Your task to perform on an android device: Open location settings Image 0: 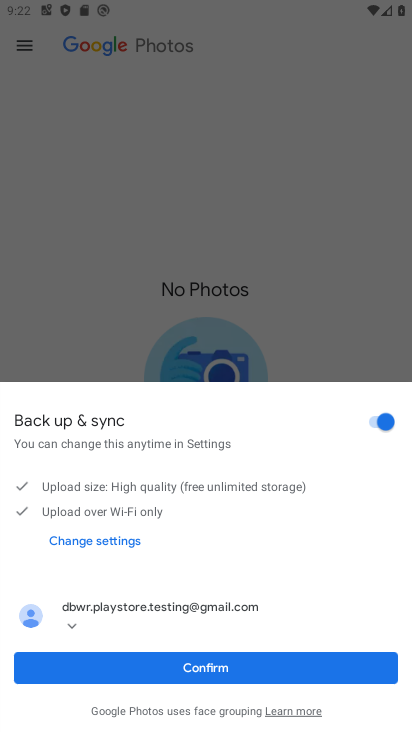
Step 0: press home button
Your task to perform on an android device: Open location settings Image 1: 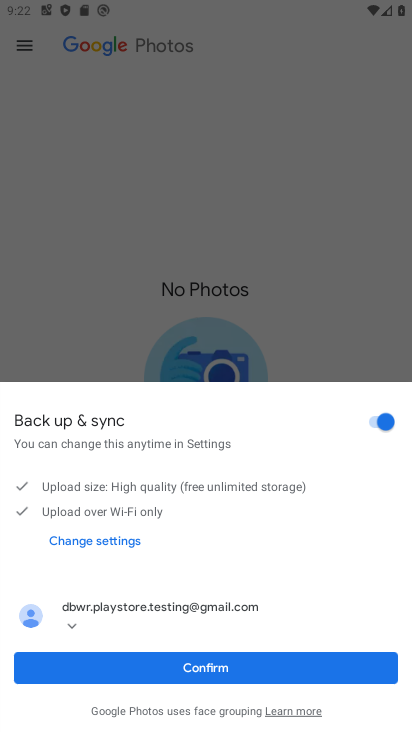
Step 1: press home button
Your task to perform on an android device: Open location settings Image 2: 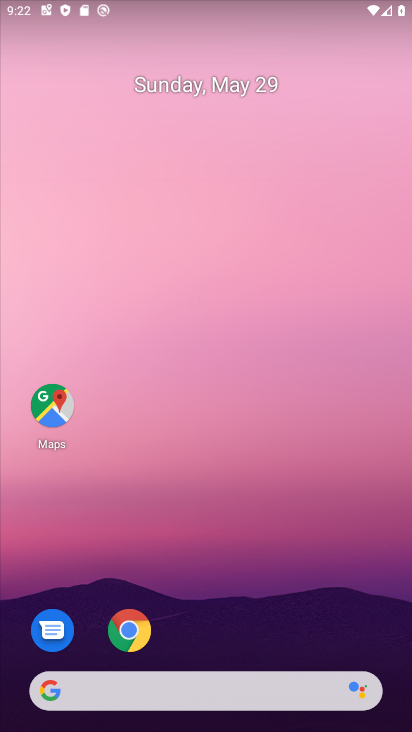
Step 2: drag from (355, 570) to (336, 85)
Your task to perform on an android device: Open location settings Image 3: 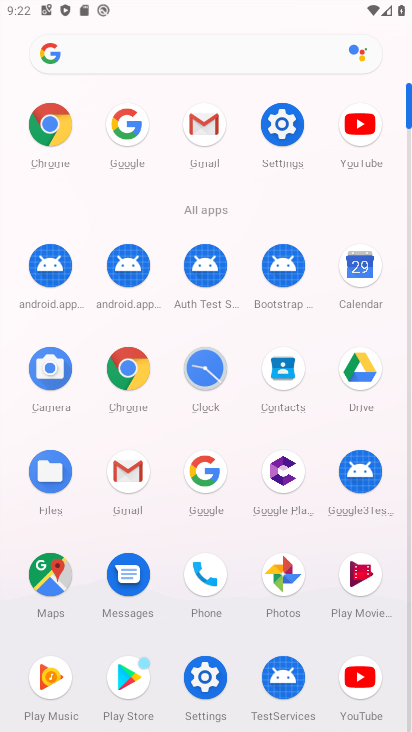
Step 3: click (298, 118)
Your task to perform on an android device: Open location settings Image 4: 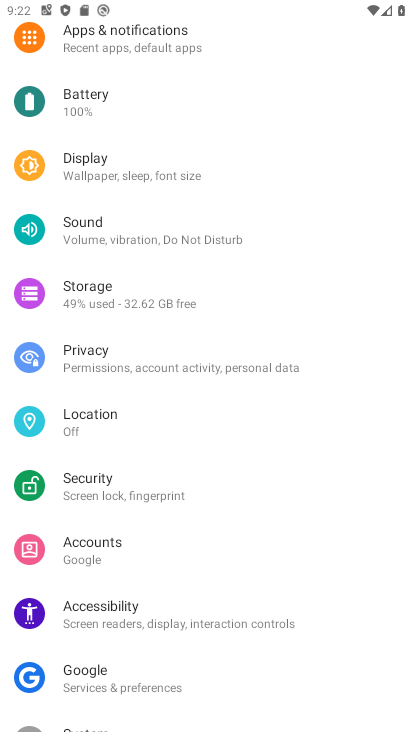
Step 4: click (170, 420)
Your task to perform on an android device: Open location settings Image 5: 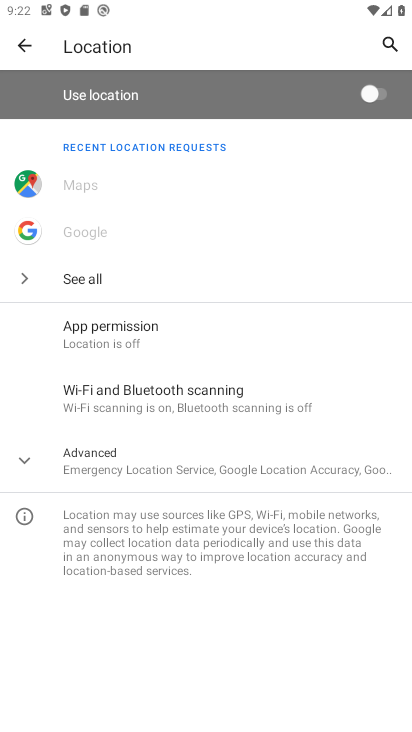
Step 5: task complete